Your task to perform on an android device: open chrome and create a bookmark for the current page Image 0: 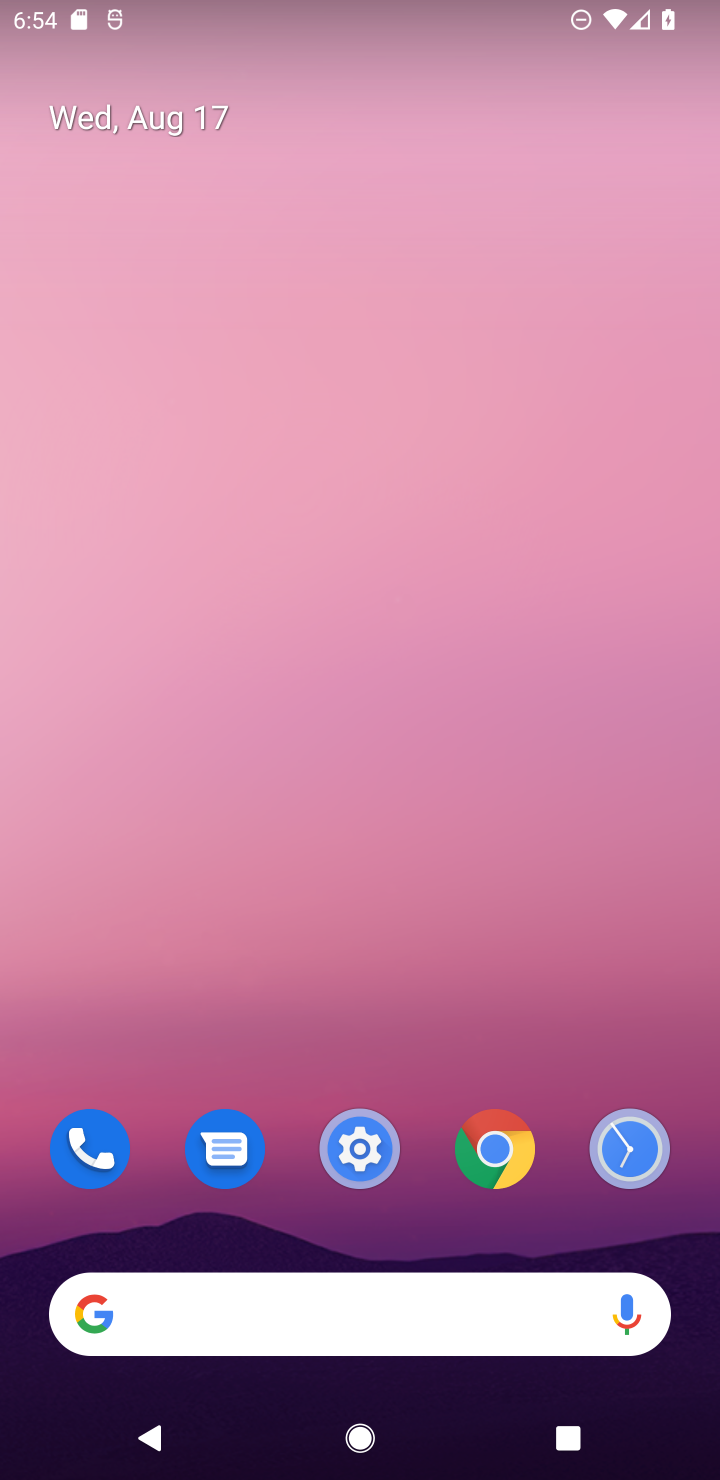
Step 0: click (497, 1144)
Your task to perform on an android device: open chrome and create a bookmark for the current page Image 1: 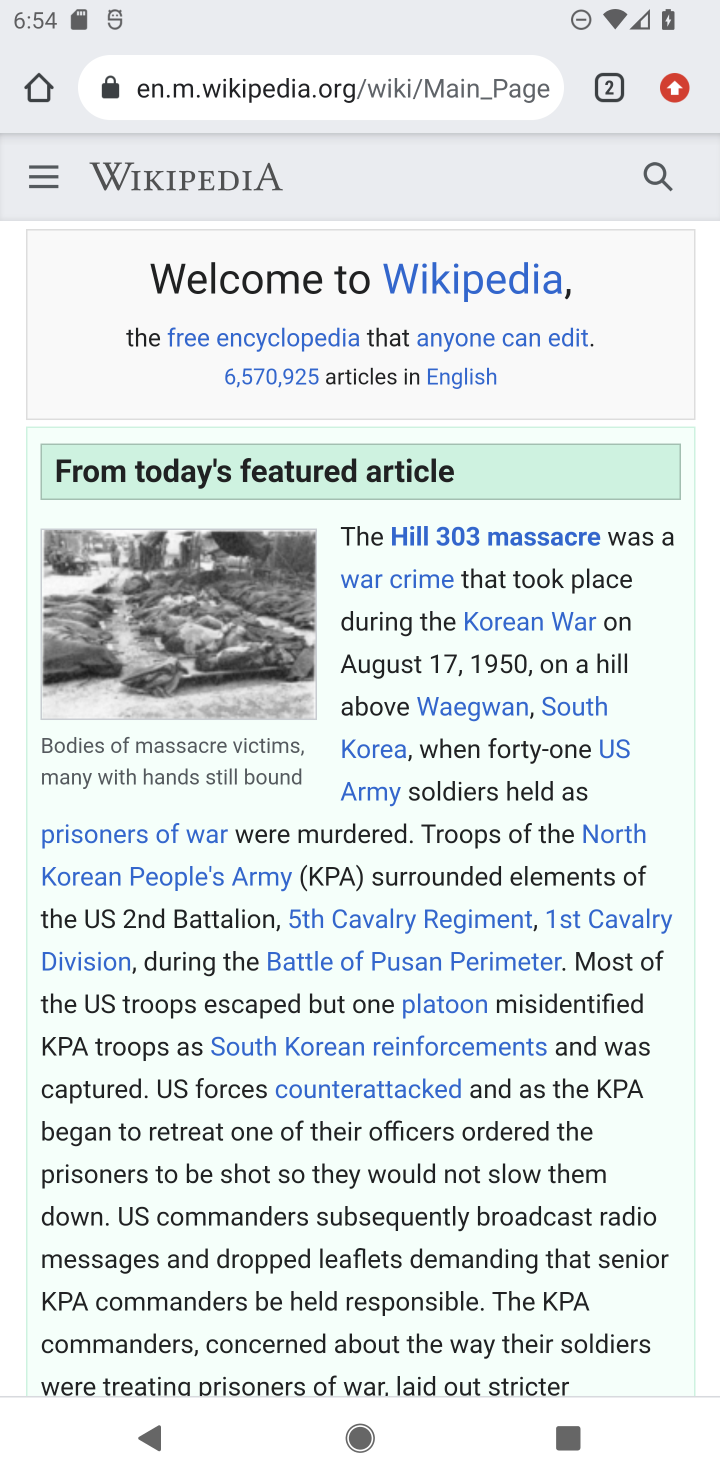
Step 1: click (678, 91)
Your task to perform on an android device: open chrome and create a bookmark for the current page Image 2: 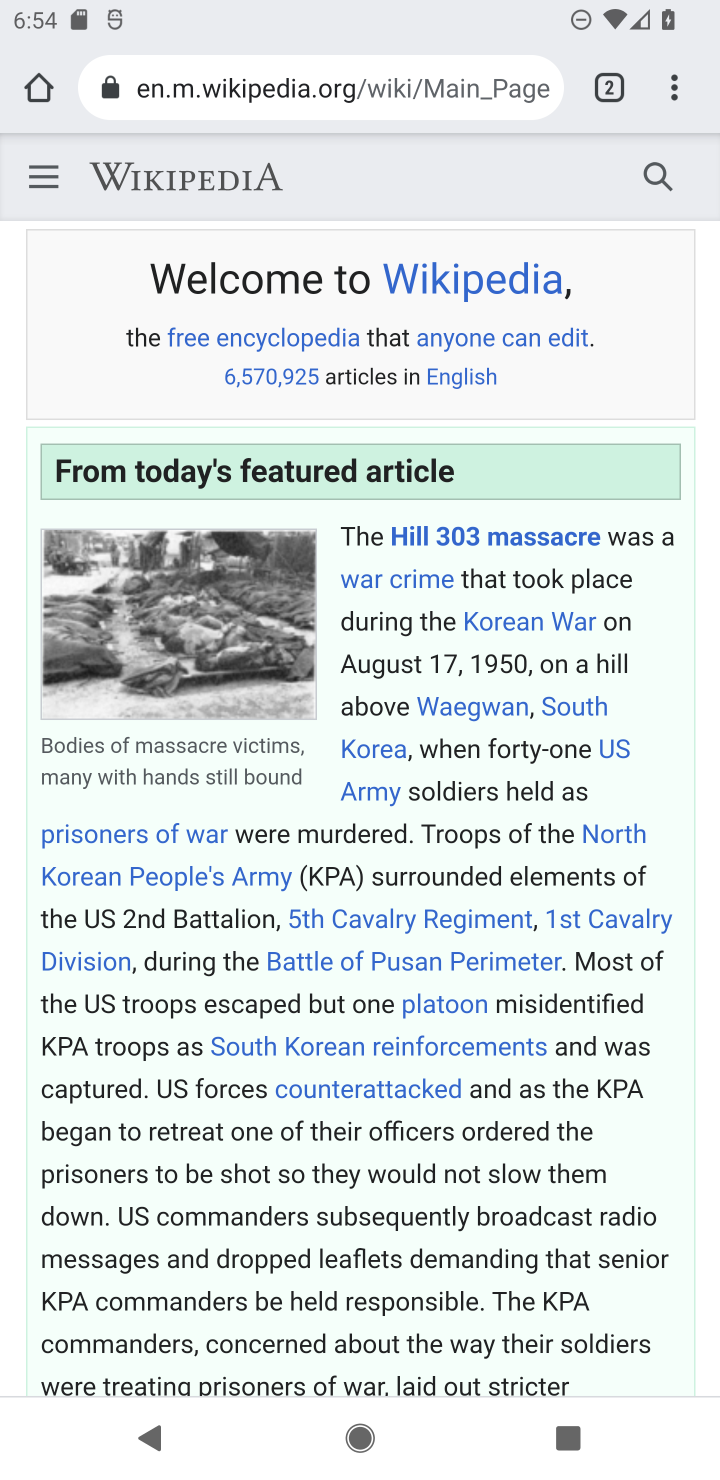
Step 2: click (652, 84)
Your task to perform on an android device: open chrome and create a bookmark for the current page Image 3: 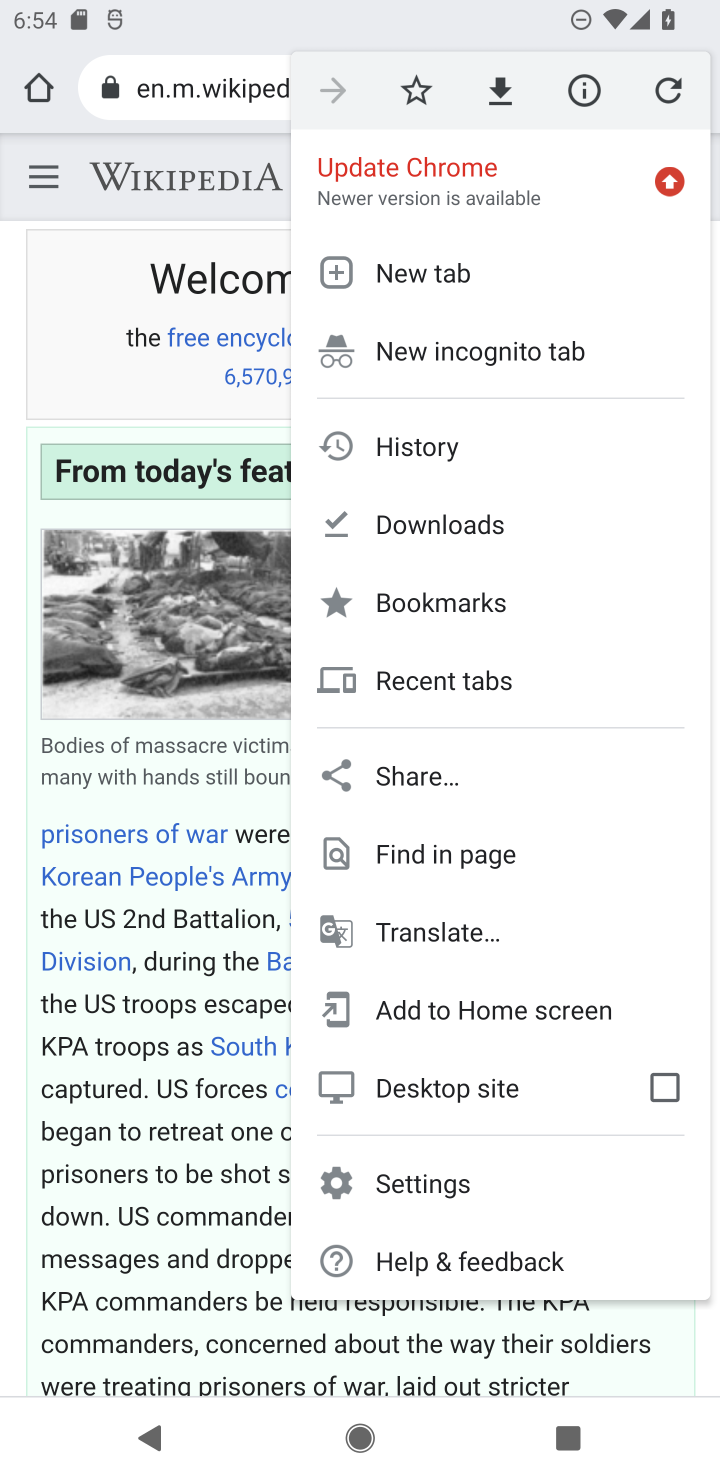
Step 3: click (423, 92)
Your task to perform on an android device: open chrome and create a bookmark for the current page Image 4: 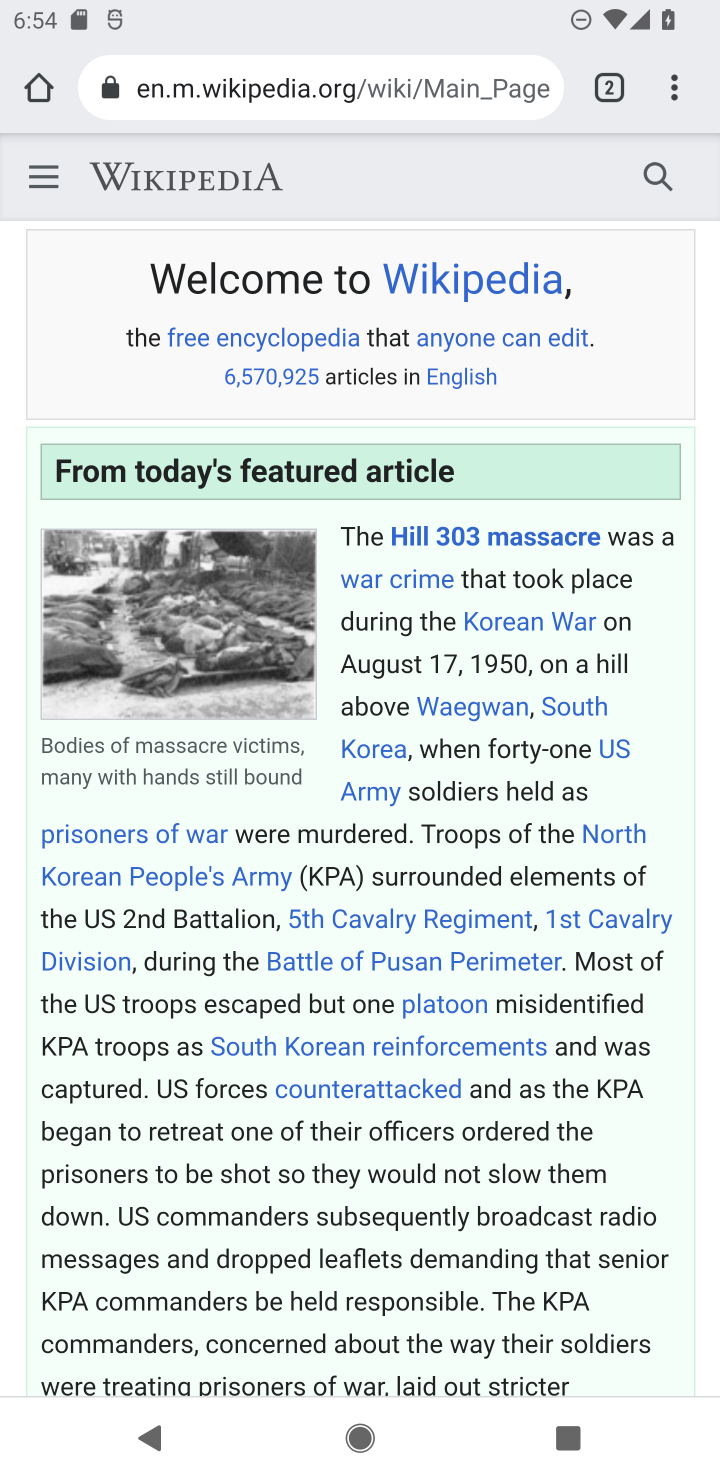
Step 4: task complete